Your task to perform on an android device: install app "Firefox Browser" Image 0: 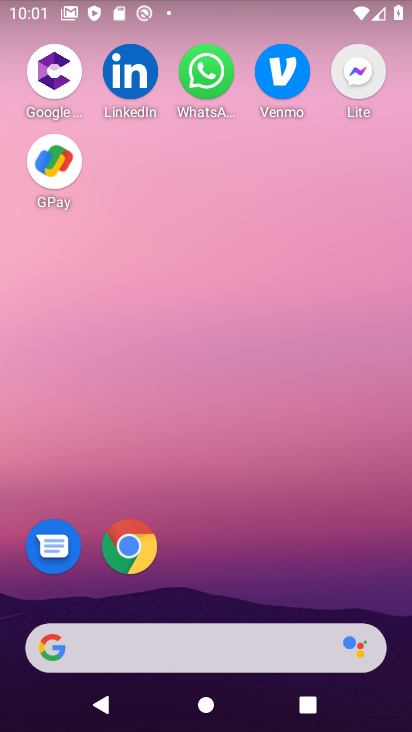
Step 0: drag from (201, 534) to (244, 73)
Your task to perform on an android device: install app "Firefox Browser" Image 1: 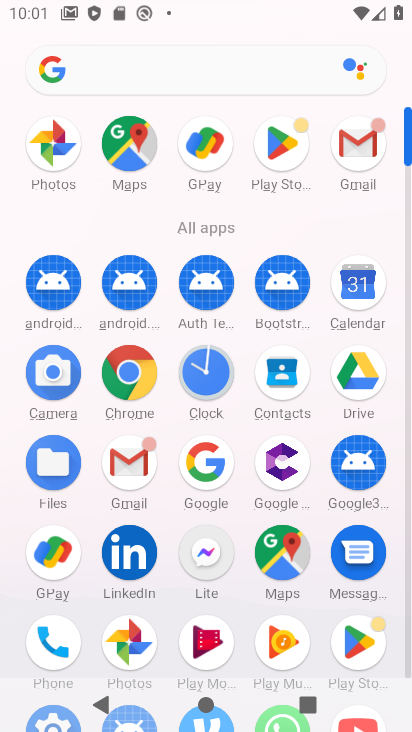
Step 1: click (293, 144)
Your task to perform on an android device: install app "Firefox Browser" Image 2: 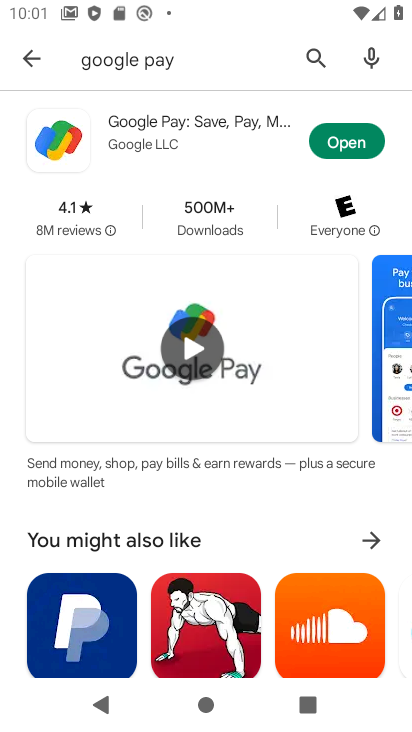
Step 2: click (307, 57)
Your task to perform on an android device: install app "Firefox Browser" Image 3: 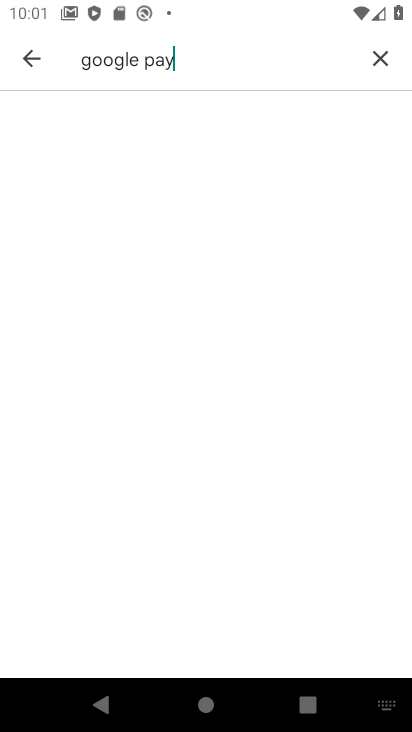
Step 3: click (376, 64)
Your task to perform on an android device: install app "Firefox Browser" Image 4: 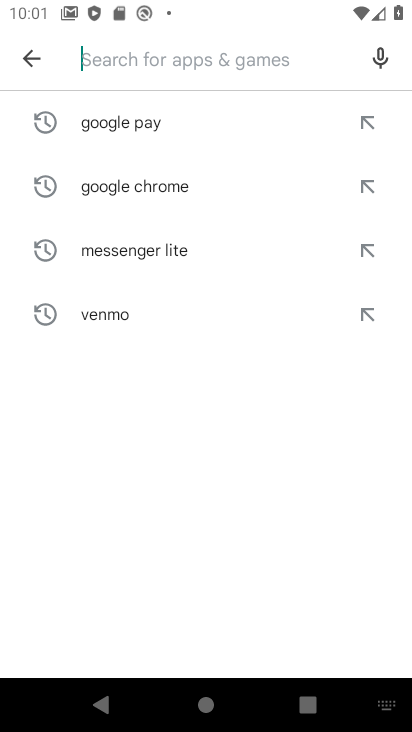
Step 4: click (191, 55)
Your task to perform on an android device: install app "Firefox Browser" Image 5: 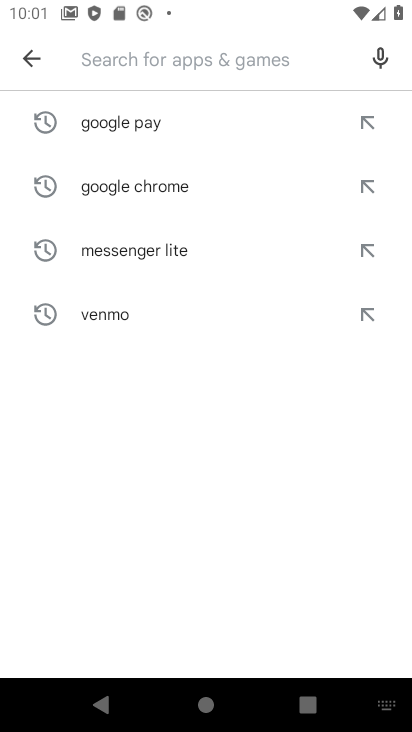
Step 5: type "firefox browse"
Your task to perform on an android device: install app "Firefox Browser" Image 6: 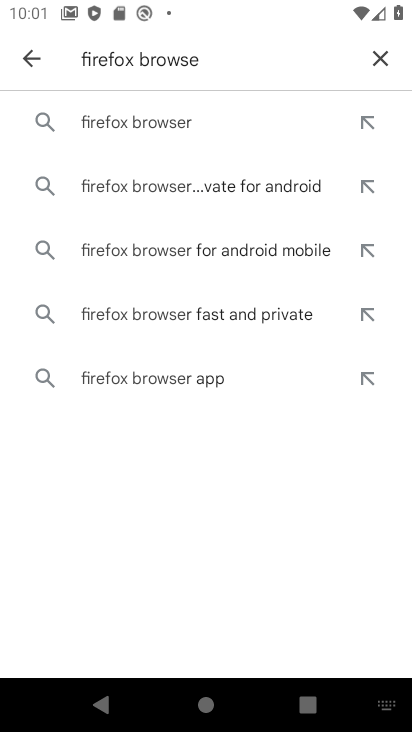
Step 6: click (145, 117)
Your task to perform on an android device: install app "Firefox Browser" Image 7: 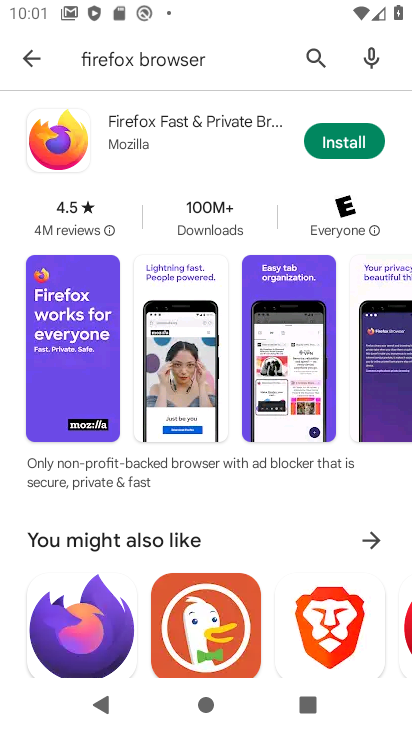
Step 7: click (314, 130)
Your task to perform on an android device: install app "Firefox Browser" Image 8: 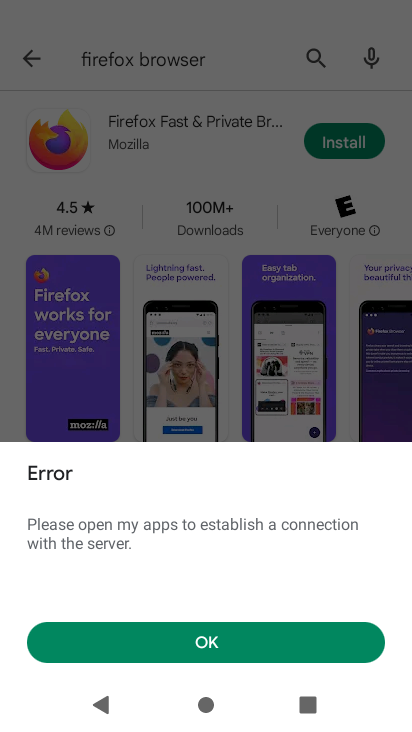
Step 8: click (178, 653)
Your task to perform on an android device: install app "Firefox Browser" Image 9: 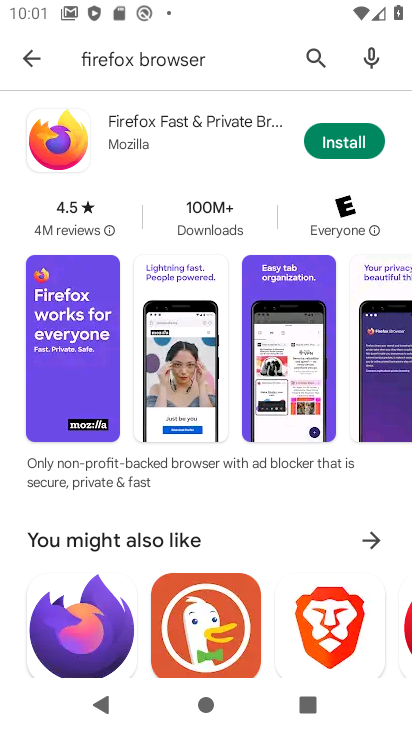
Step 9: click (359, 125)
Your task to perform on an android device: install app "Firefox Browser" Image 10: 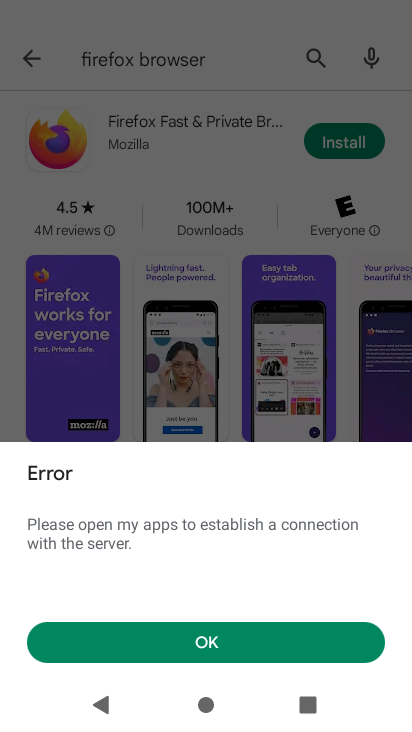
Step 10: click (173, 644)
Your task to perform on an android device: install app "Firefox Browser" Image 11: 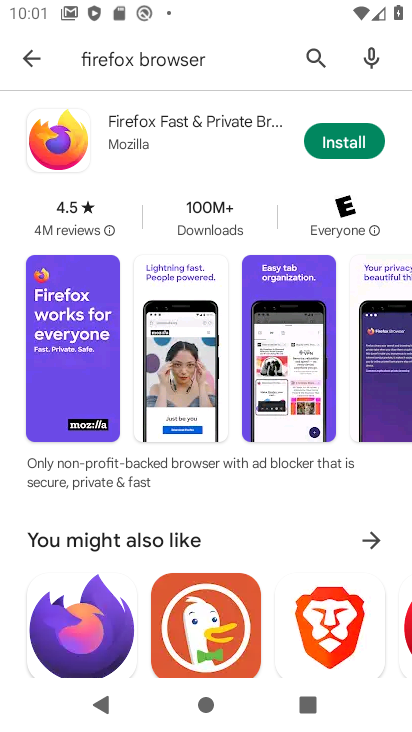
Step 11: task complete